Your task to perform on an android device: open app "DoorDash - Food Delivery" (install if not already installed) Image 0: 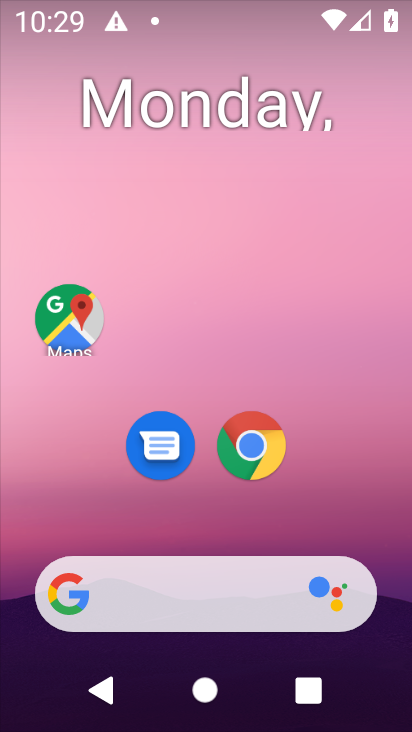
Step 0: drag from (216, 513) to (233, 155)
Your task to perform on an android device: open app "DoorDash - Food Delivery" (install if not already installed) Image 1: 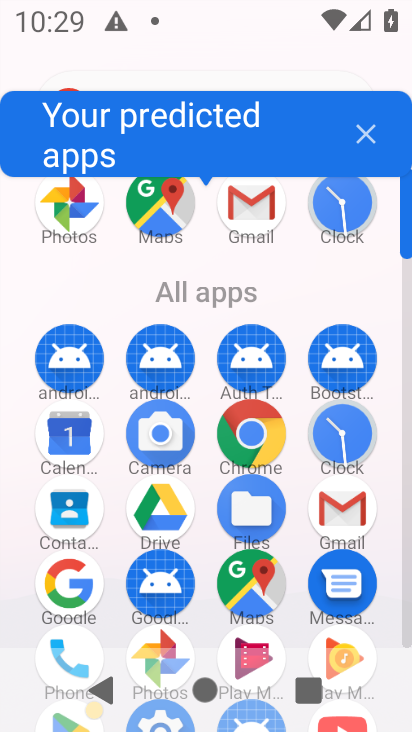
Step 1: drag from (291, 658) to (335, 176)
Your task to perform on an android device: open app "DoorDash - Food Delivery" (install if not already installed) Image 2: 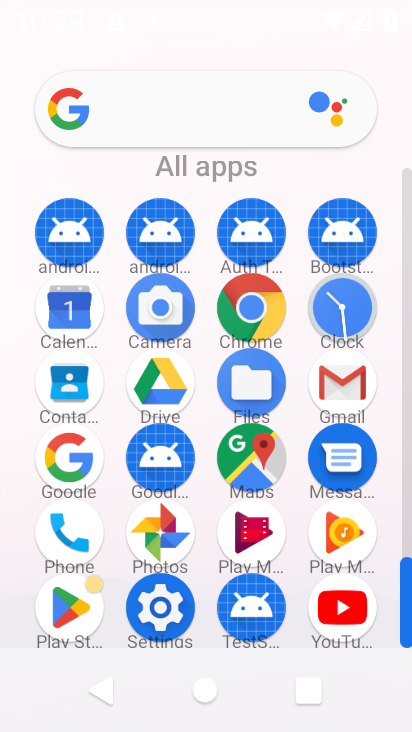
Step 2: click (73, 610)
Your task to perform on an android device: open app "DoorDash - Food Delivery" (install if not already installed) Image 3: 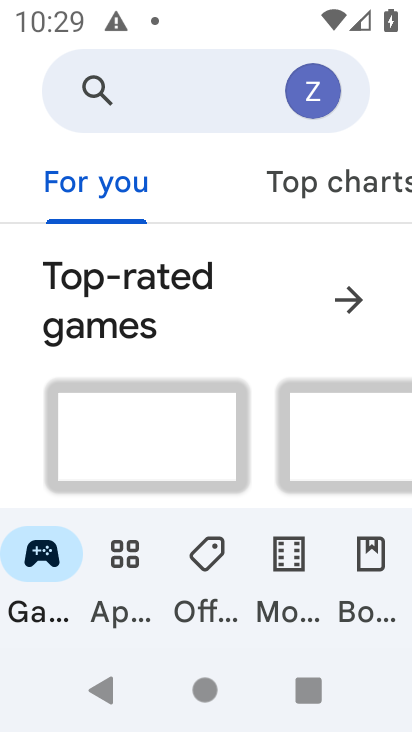
Step 3: click (174, 80)
Your task to perform on an android device: open app "DoorDash - Food Delivery" (install if not already installed) Image 4: 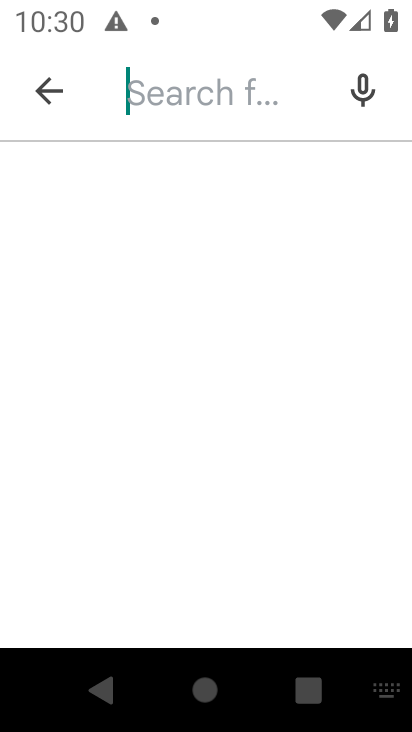
Step 4: type "DoorDash - Food Delivery""
Your task to perform on an android device: open app "DoorDash - Food Delivery" (install if not already installed) Image 5: 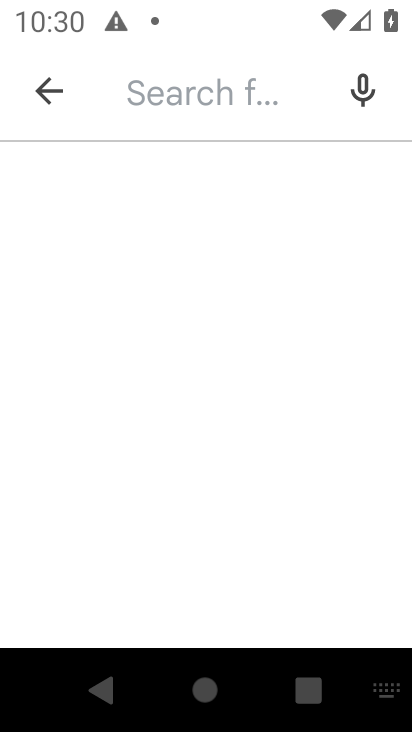
Step 5: type "DoorDash - Food Delivery""
Your task to perform on an android device: open app "DoorDash - Food Delivery" (install if not already installed) Image 6: 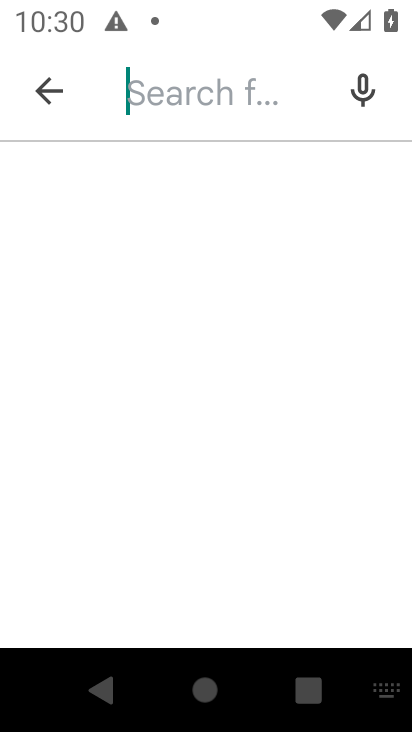
Step 6: click (202, 112)
Your task to perform on an android device: open app "DoorDash - Food Delivery" (install if not already installed) Image 7: 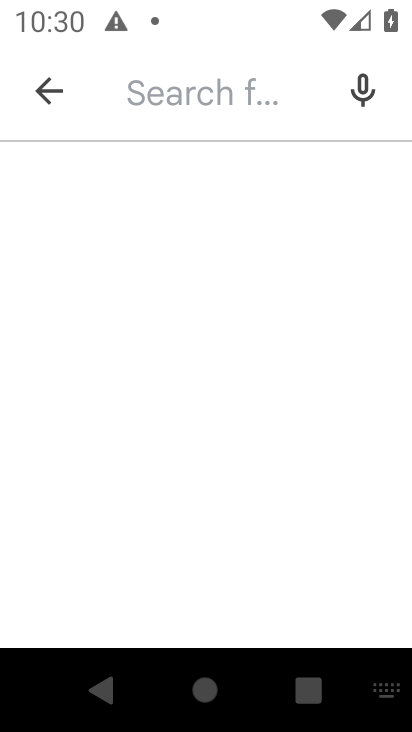
Step 7: type "DoorDash - Food Delivery""
Your task to perform on an android device: open app "DoorDash - Food Delivery" (install if not already installed) Image 8: 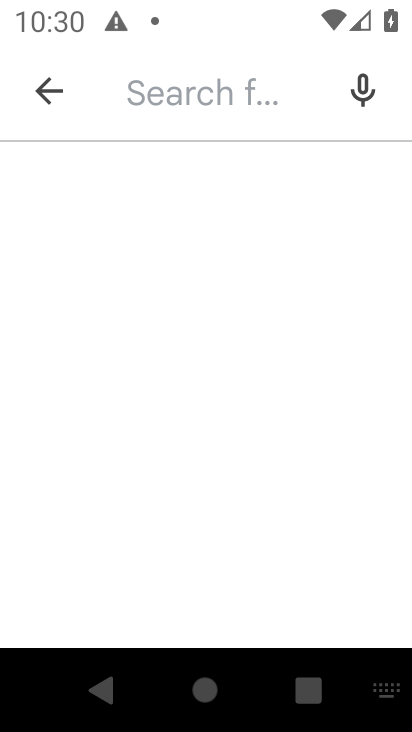
Step 8: click (198, 90)
Your task to perform on an android device: open app "DoorDash - Food Delivery" (install if not already installed) Image 9: 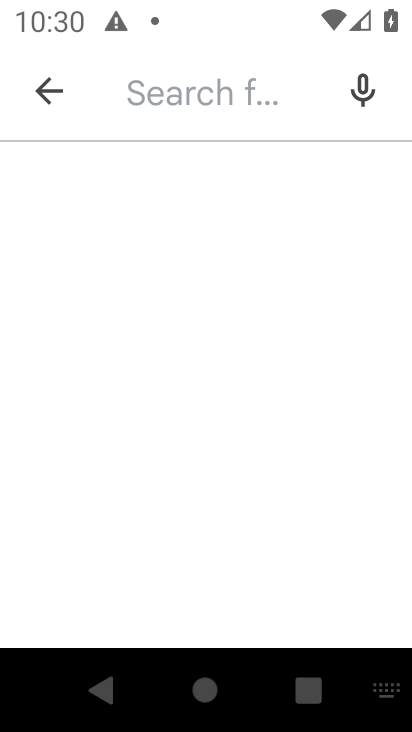
Step 9: type "DoorDash - Food Delivery""
Your task to perform on an android device: open app "DoorDash - Food Delivery" (install if not already installed) Image 10: 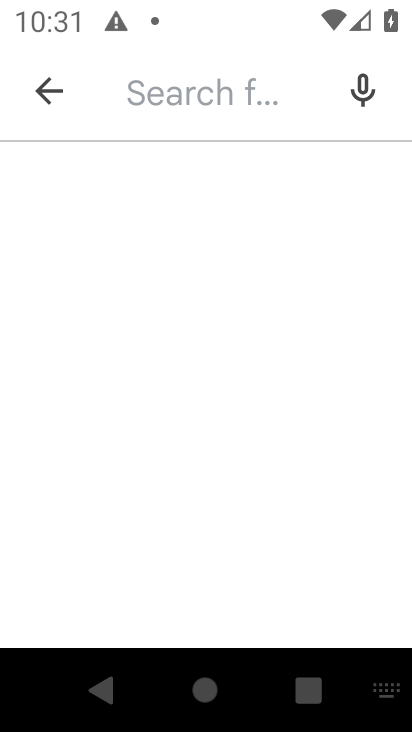
Step 10: type "DoorDash - Food Delivery"
Your task to perform on an android device: open app "DoorDash - Food Delivery" (install if not already installed) Image 11: 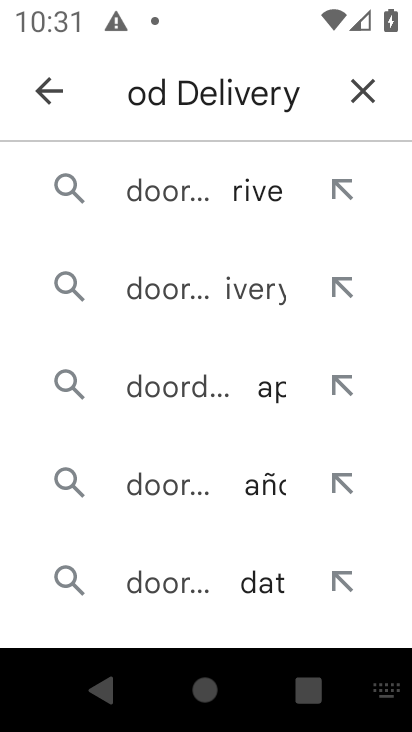
Step 11: click (224, 188)
Your task to perform on an android device: open app "DoorDash - Food Delivery" (install if not already installed) Image 12: 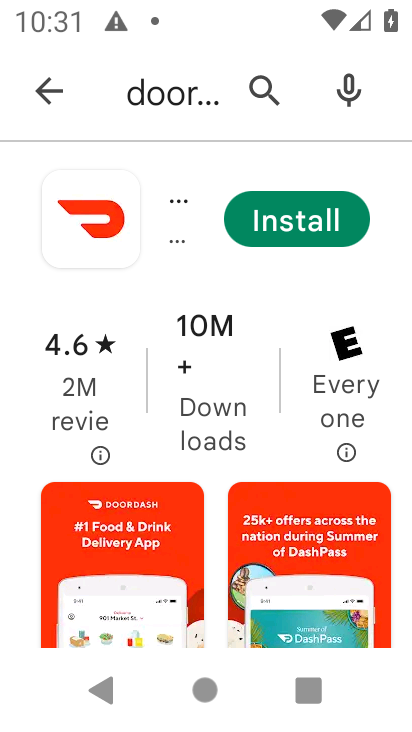
Step 12: click (318, 227)
Your task to perform on an android device: open app "DoorDash - Food Delivery" (install if not already installed) Image 13: 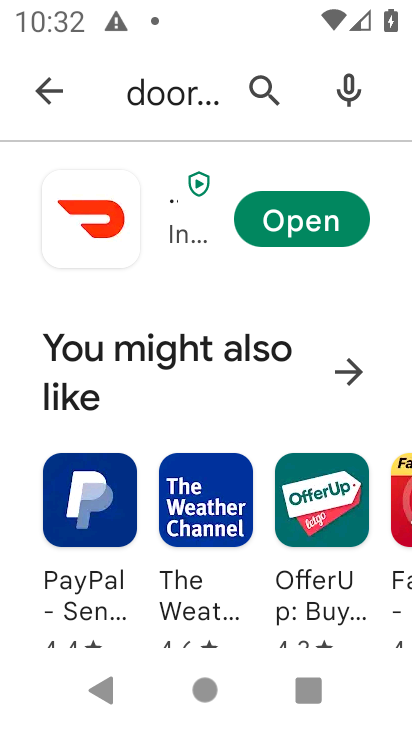
Step 13: click (304, 217)
Your task to perform on an android device: open app "DoorDash - Food Delivery" (install if not already installed) Image 14: 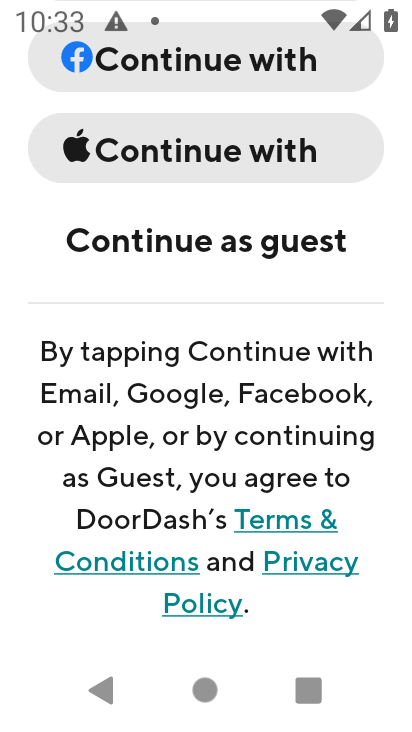
Step 14: task complete